Your task to perform on an android device: Open settings on Google Maps Image 0: 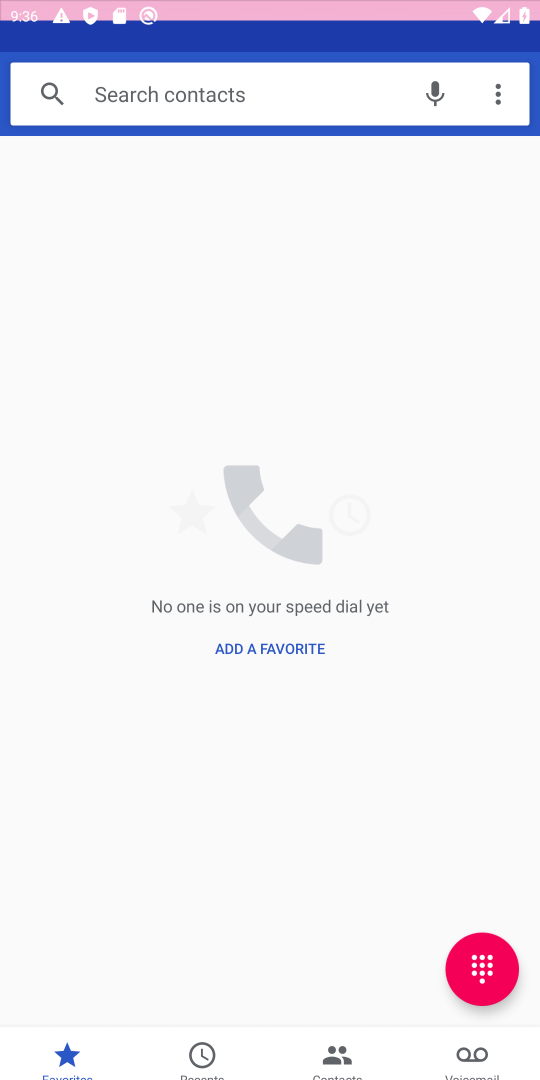
Step 0: press home button
Your task to perform on an android device: Open settings on Google Maps Image 1: 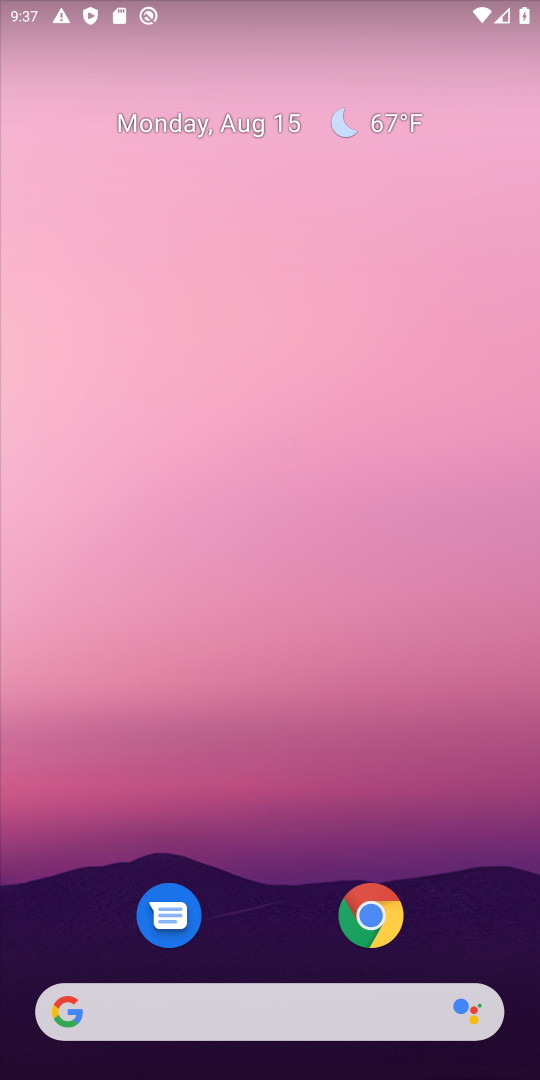
Step 1: drag from (274, 911) to (227, 253)
Your task to perform on an android device: Open settings on Google Maps Image 2: 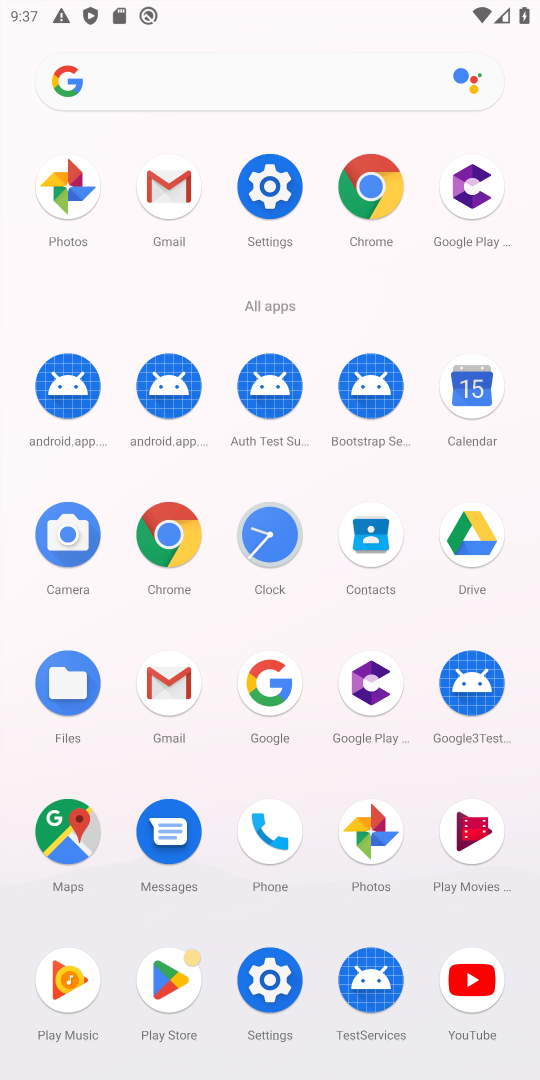
Step 2: click (64, 850)
Your task to perform on an android device: Open settings on Google Maps Image 3: 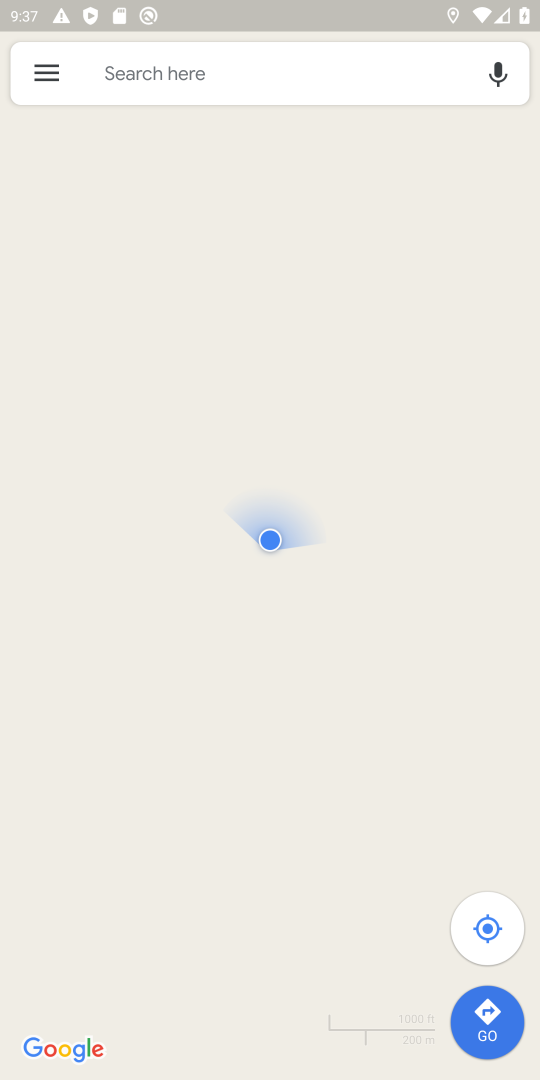
Step 3: click (37, 61)
Your task to perform on an android device: Open settings on Google Maps Image 4: 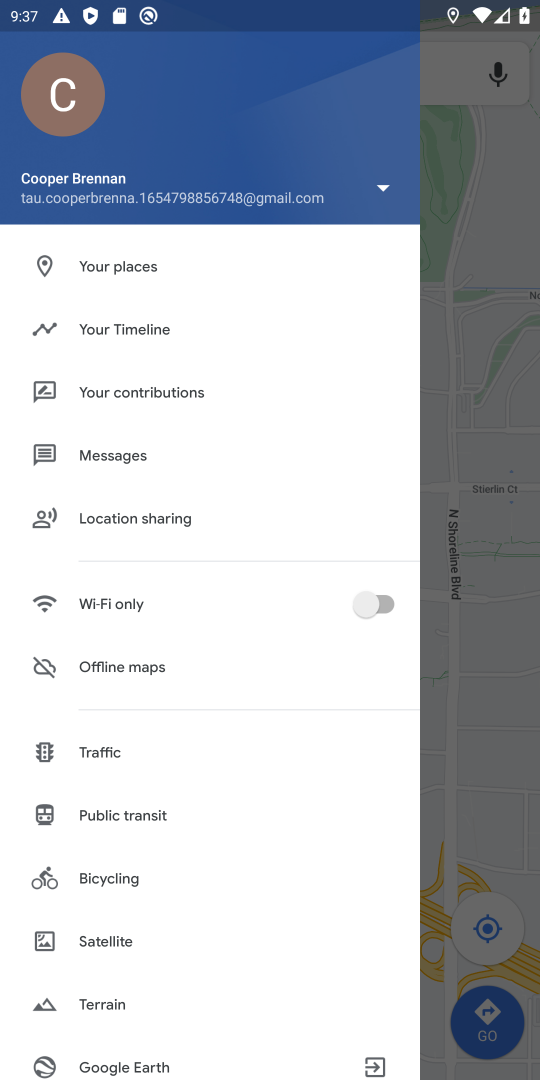
Step 4: drag from (203, 732) to (240, 420)
Your task to perform on an android device: Open settings on Google Maps Image 5: 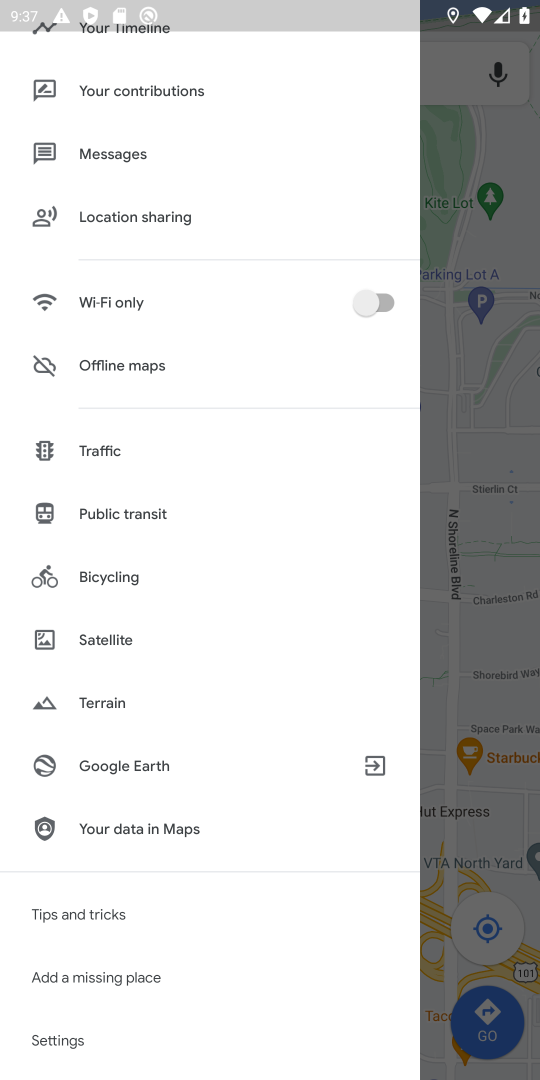
Step 5: click (57, 1033)
Your task to perform on an android device: Open settings on Google Maps Image 6: 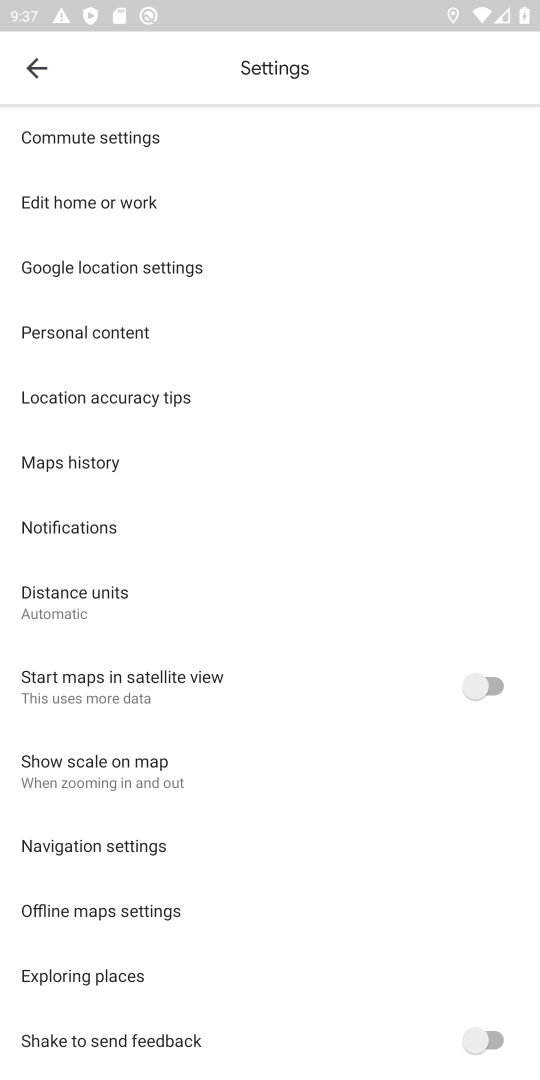
Step 6: task complete